Your task to perform on an android device: empty trash in google photos Image 0: 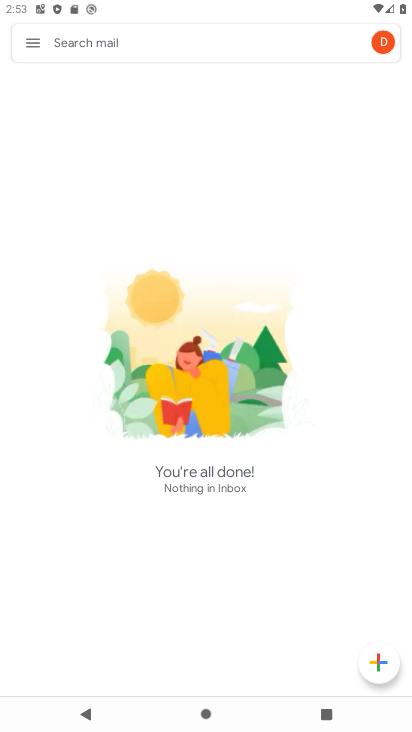
Step 0: press home button
Your task to perform on an android device: empty trash in google photos Image 1: 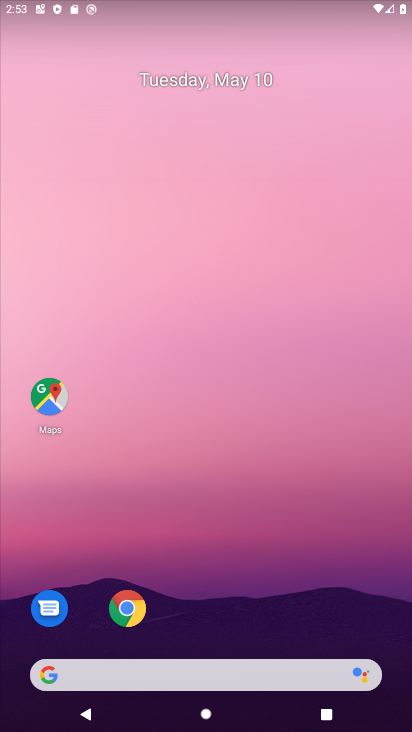
Step 1: drag from (212, 638) to (261, 0)
Your task to perform on an android device: empty trash in google photos Image 2: 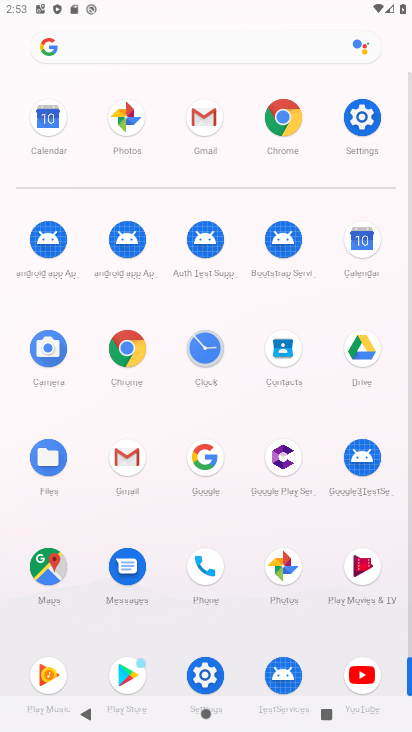
Step 2: click (297, 592)
Your task to perform on an android device: empty trash in google photos Image 3: 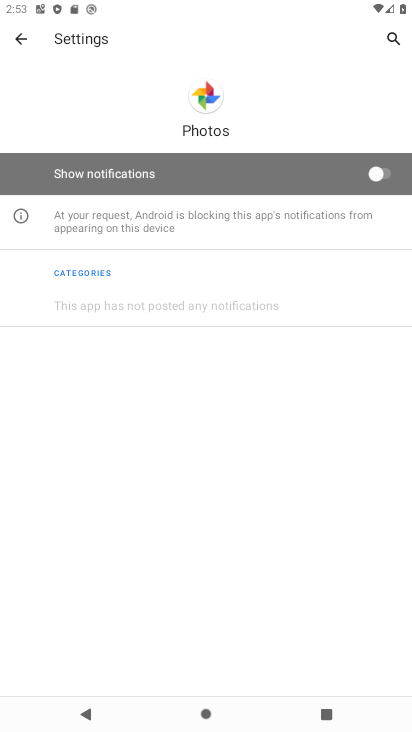
Step 3: click (23, 45)
Your task to perform on an android device: empty trash in google photos Image 4: 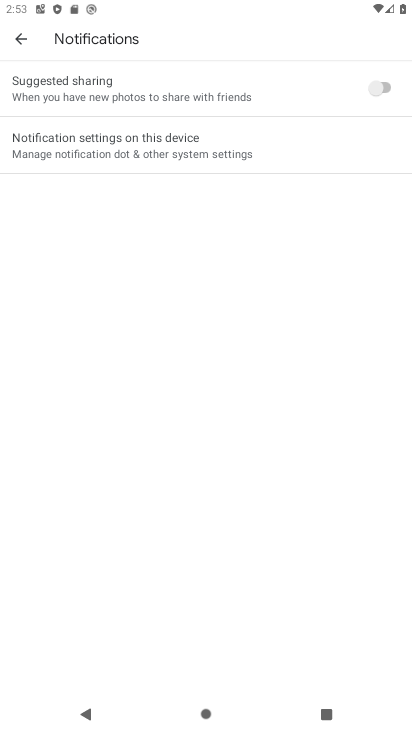
Step 4: click (25, 46)
Your task to perform on an android device: empty trash in google photos Image 5: 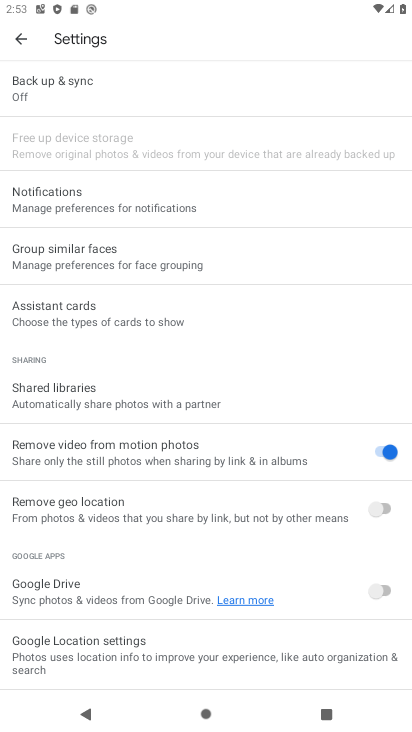
Step 5: click (27, 34)
Your task to perform on an android device: empty trash in google photos Image 6: 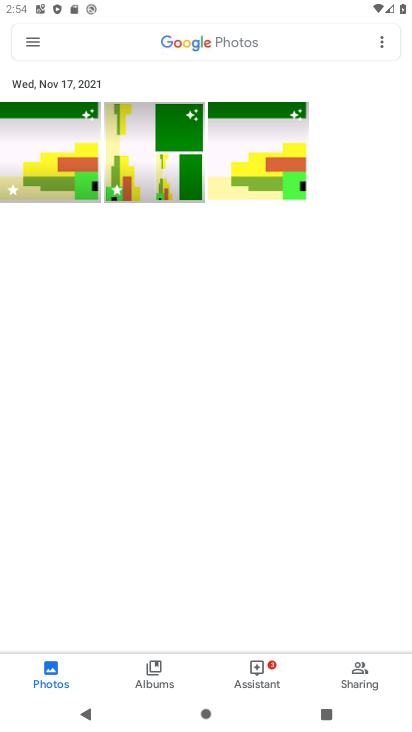
Step 6: click (22, 40)
Your task to perform on an android device: empty trash in google photos Image 7: 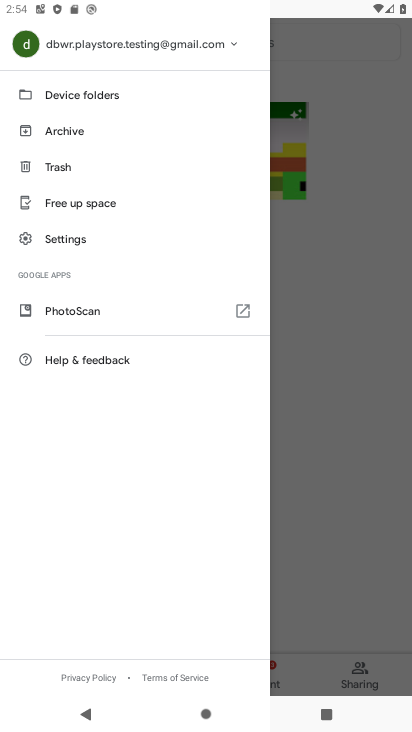
Step 7: click (67, 168)
Your task to perform on an android device: empty trash in google photos Image 8: 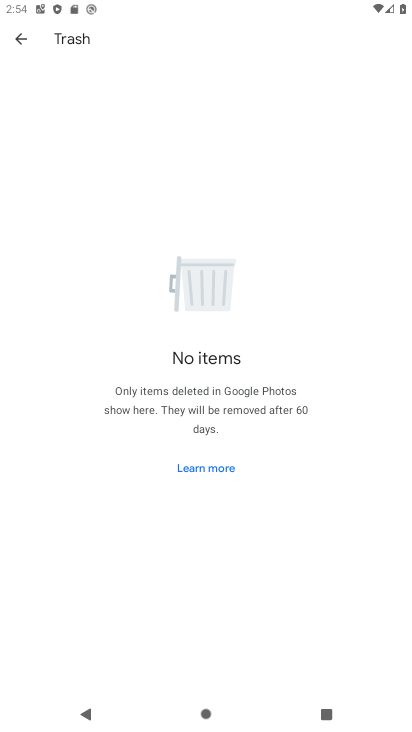
Step 8: task complete